Your task to perform on an android device: Open Chrome and go to settings Image 0: 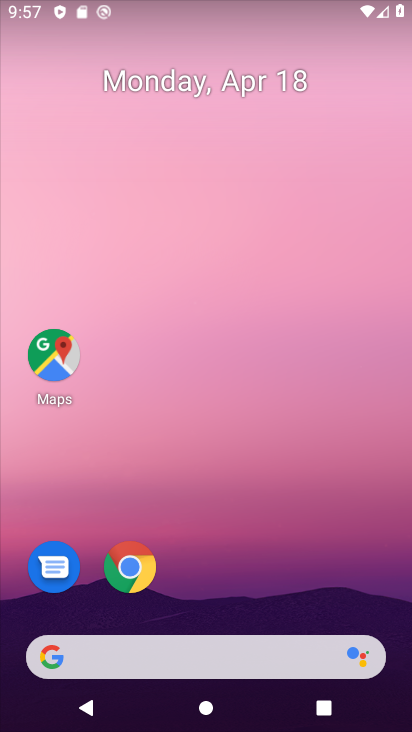
Step 0: click (268, 68)
Your task to perform on an android device: Open Chrome and go to settings Image 1: 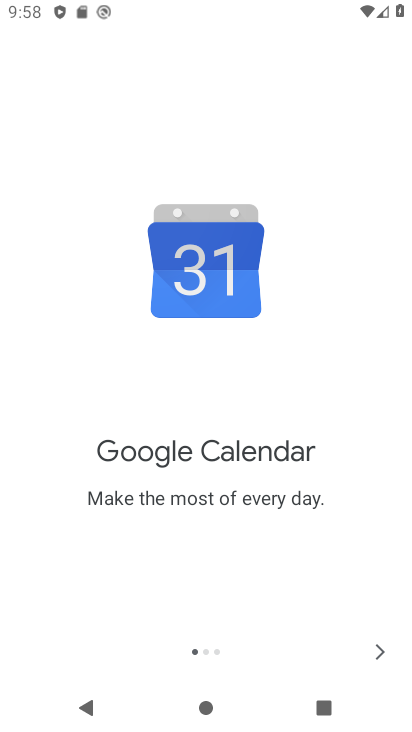
Step 1: press home button
Your task to perform on an android device: Open Chrome and go to settings Image 2: 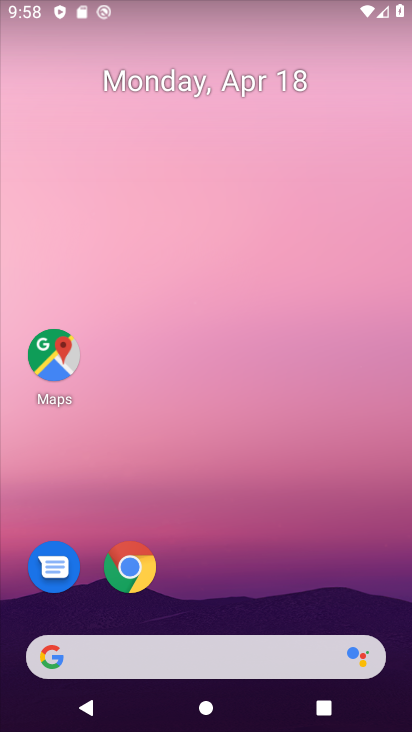
Step 2: click (147, 572)
Your task to perform on an android device: Open Chrome and go to settings Image 3: 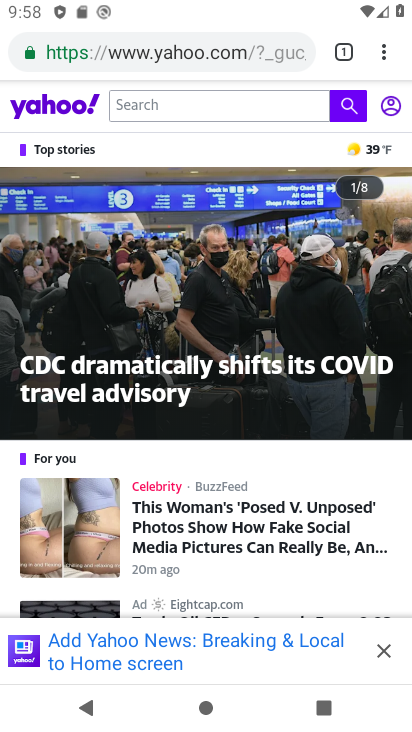
Step 3: click (385, 50)
Your task to perform on an android device: Open Chrome and go to settings Image 4: 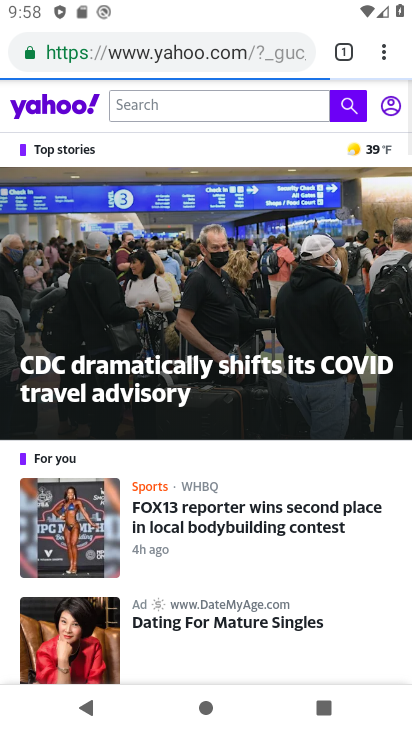
Step 4: click (381, 54)
Your task to perform on an android device: Open Chrome and go to settings Image 5: 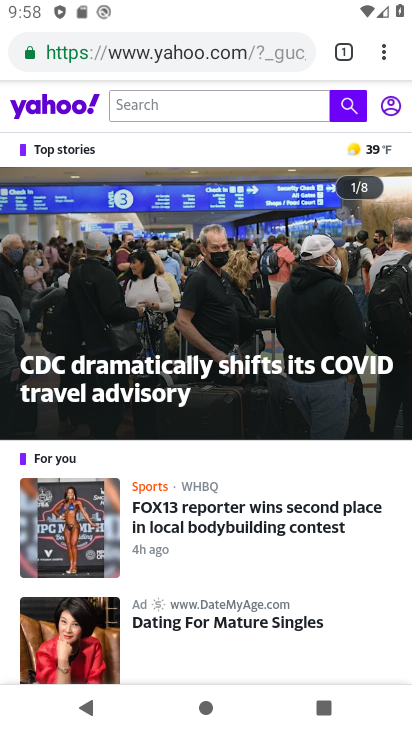
Step 5: click (385, 55)
Your task to perform on an android device: Open Chrome and go to settings Image 6: 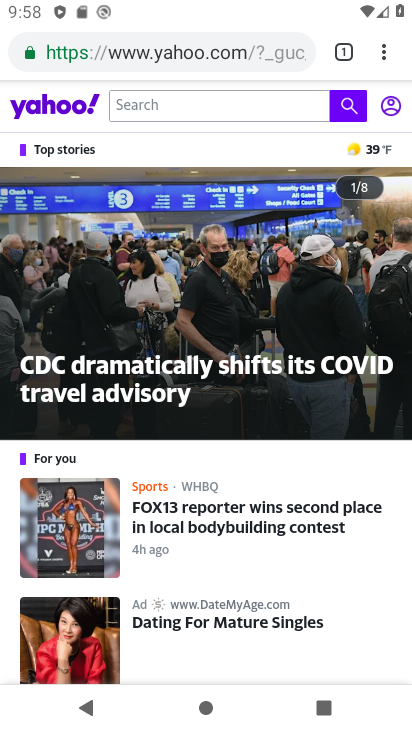
Step 6: click (385, 50)
Your task to perform on an android device: Open Chrome and go to settings Image 7: 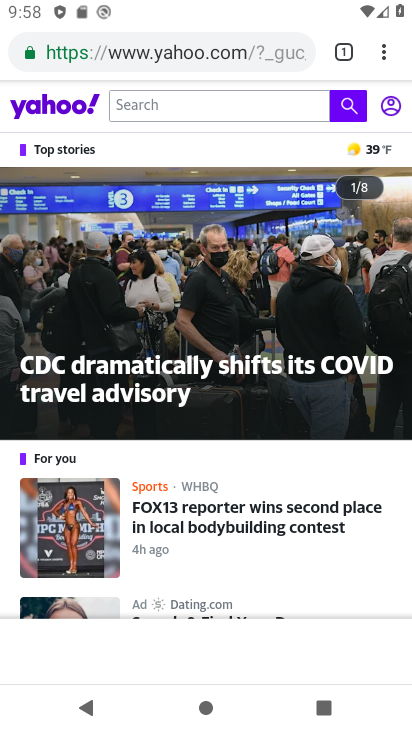
Step 7: click (381, 62)
Your task to perform on an android device: Open Chrome and go to settings Image 8: 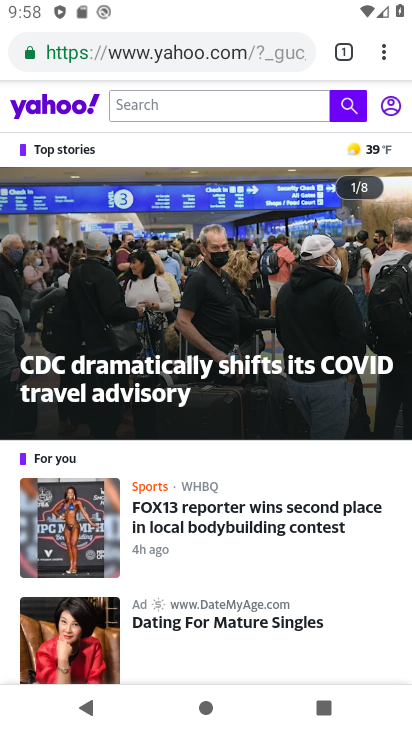
Step 8: click (385, 50)
Your task to perform on an android device: Open Chrome and go to settings Image 9: 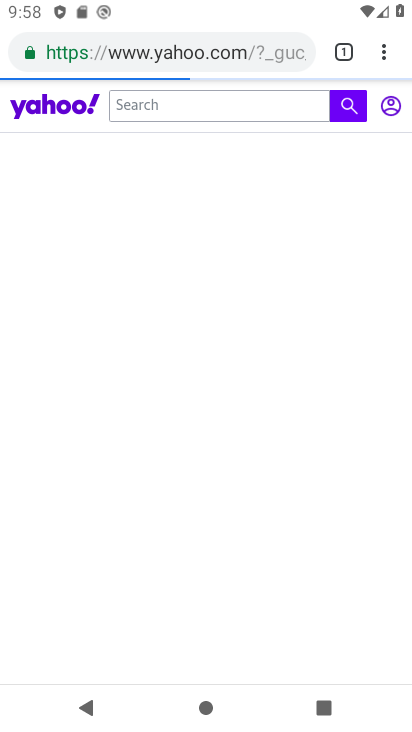
Step 9: click (385, 50)
Your task to perform on an android device: Open Chrome and go to settings Image 10: 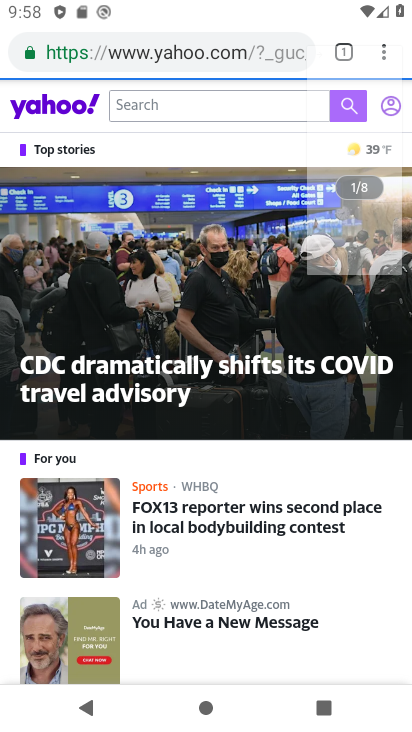
Step 10: click (385, 50)
Your task to perform on an android device: Open Chrome and go to settings Image 11: 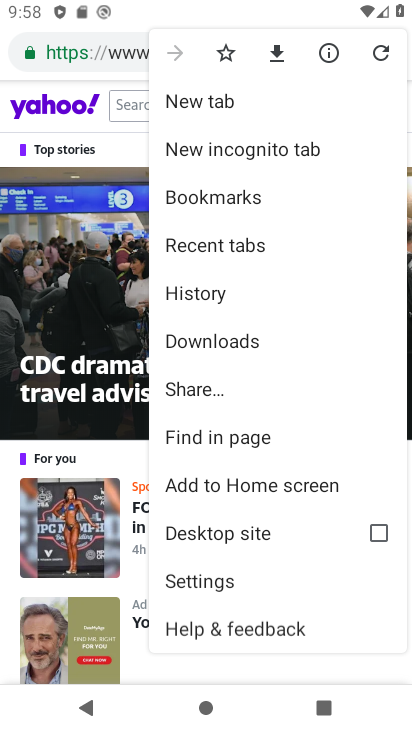
Step 11: click (385, 50)
Your task to perform on an android device: Open Chrome and go to settings Image 12: 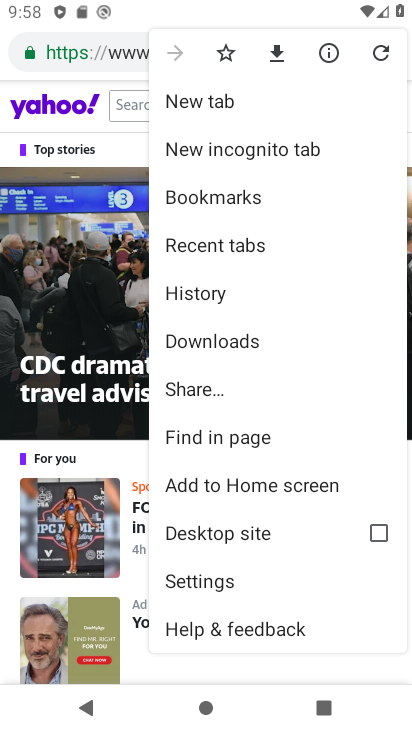
Step 12: click (385, 50)
Your task to perform on an android device: Open Chrome and go to settings Image 13: 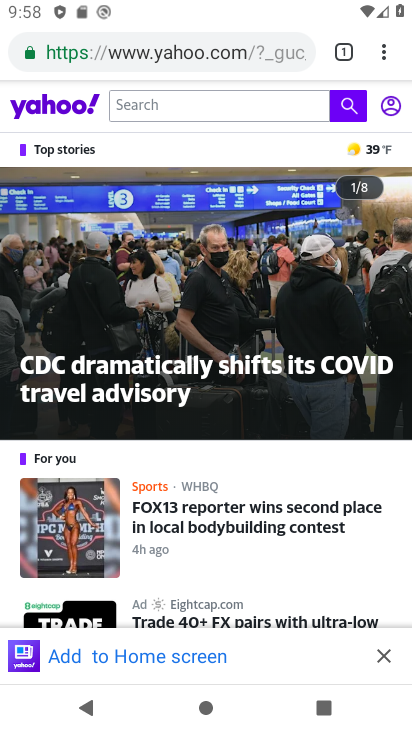
Step 13: click (381, 56)
Your task to perform on an android device: Open Chrome and go to settings Image 14: 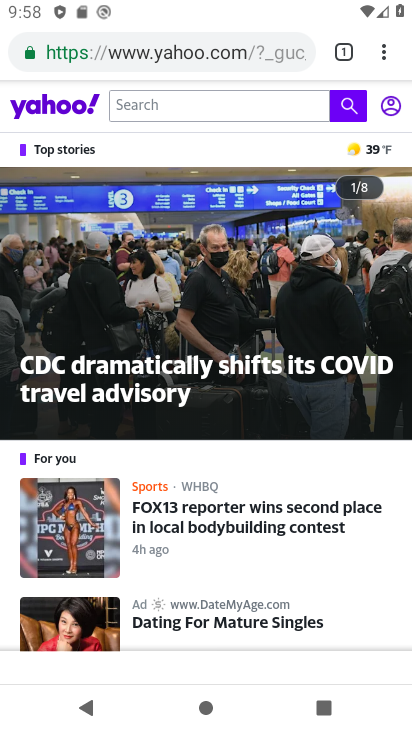
Step 14: click (385, 48)
Your task to perform on an android device: Open Chrome and go to settings Image 15: 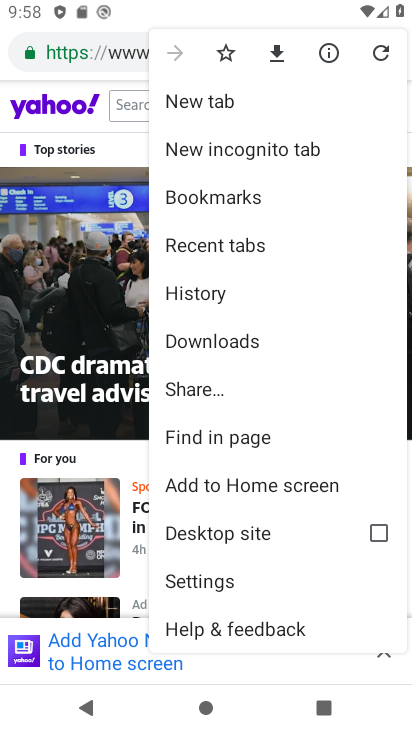
Step 15: click (201, 579)
Your task to perform on an android device: Open Chrome and go to settings Image 16: 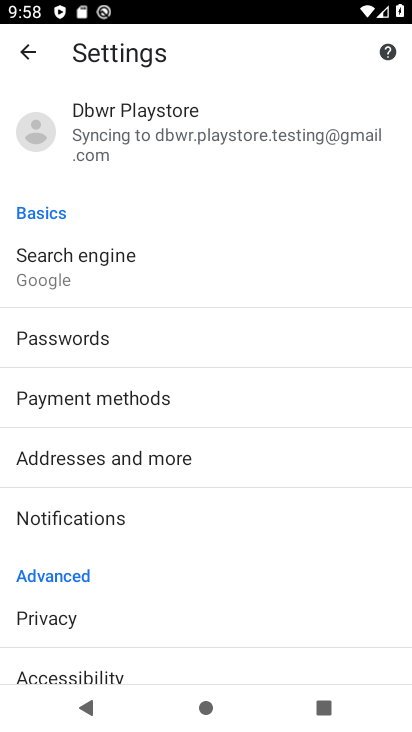
Step 16: task complete